Your task to perform on an android device: uninstall "Chime – Mobile Banking" Image 0: 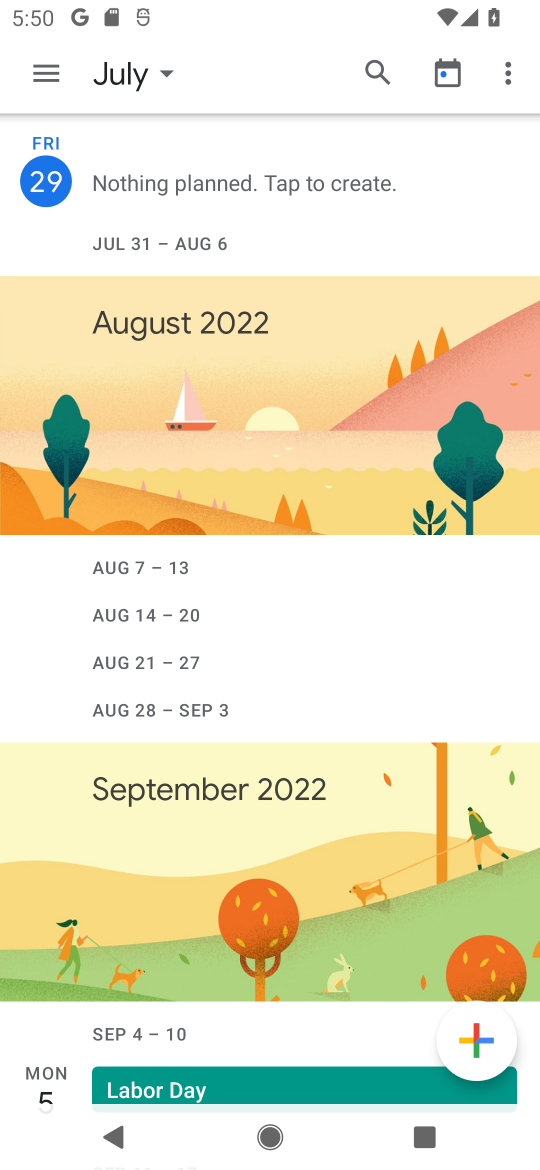
Step 0: press home button
Your task to perform on an android device: uninstall "Chime – Mobile Banking" Image 1: 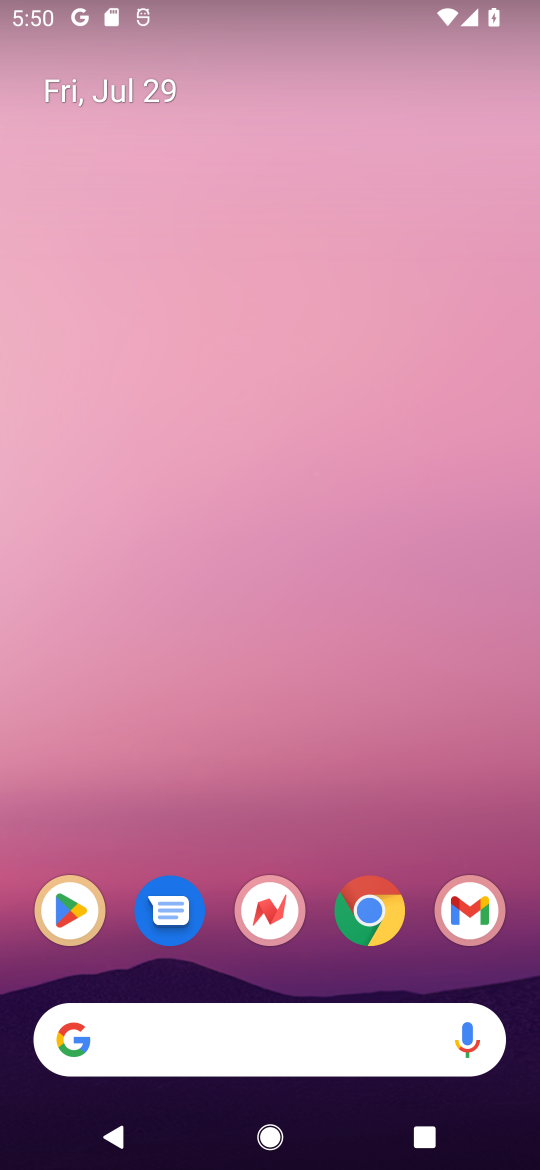
Step 1: click (92, 921)
Your task to perform on an android device: uninstall "Chime – Mobile Banking" Image 2: 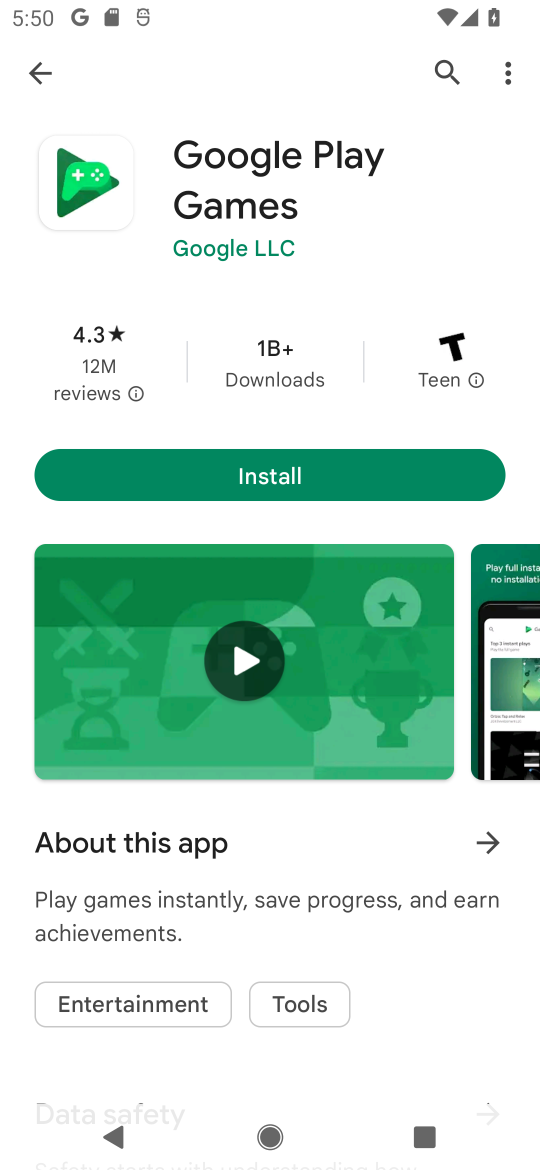
Step 2: click (441, 81)
Your task to perform on an android device: uninstall "Chime – Mobile Banking" Image 3: 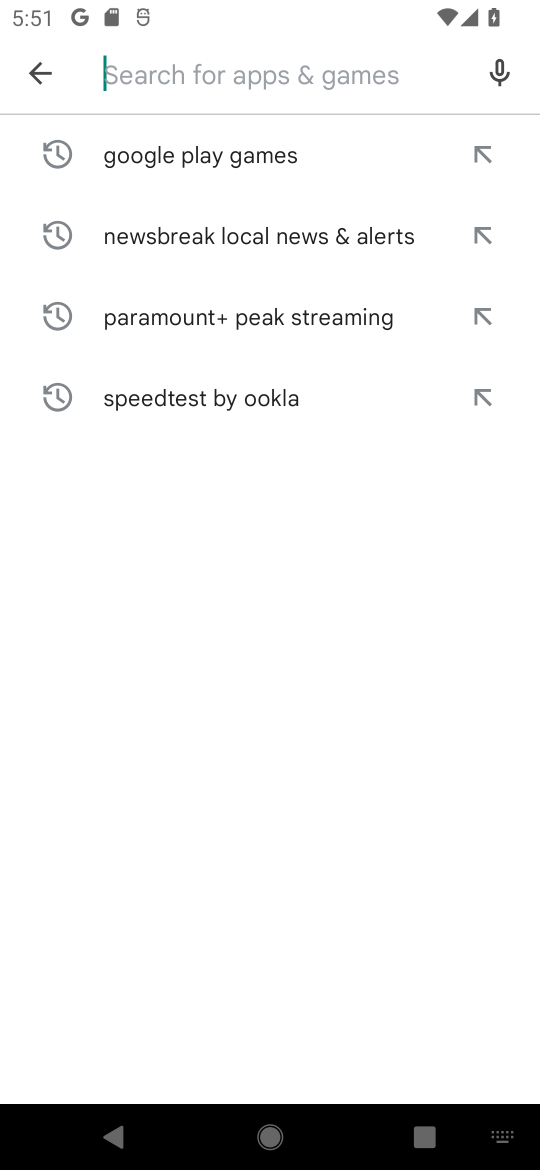
Step 3: type "chime - mobile banking"
Your task to perform on an android device: uninstall "Chime – Mobile Banking" Image 4: 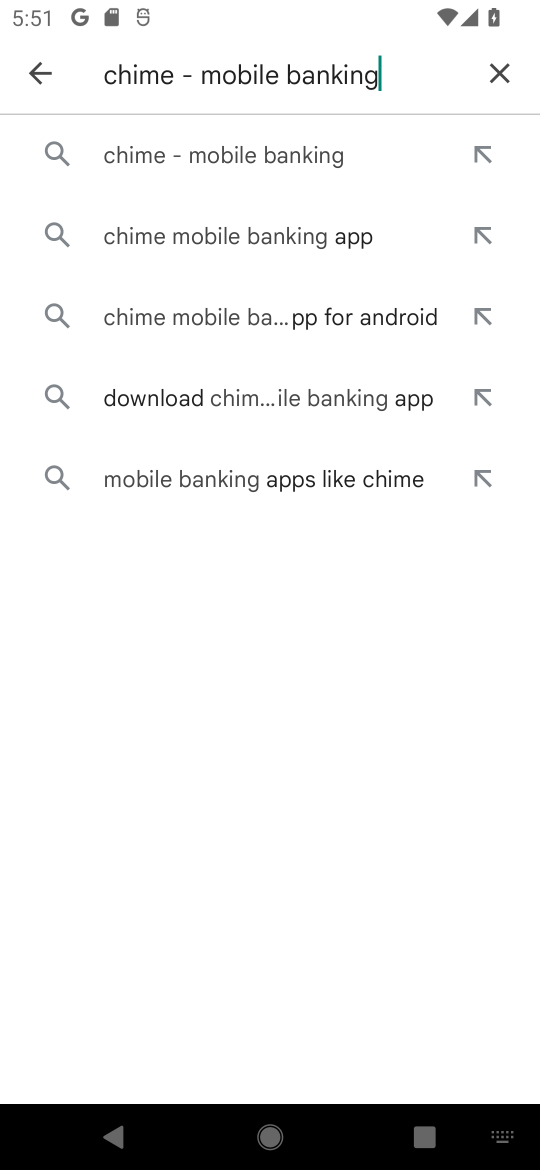
Step 4: click (345, 136)
Your task to perform on an android device: uninstall "Chime – Mobile Banking" Image 5: 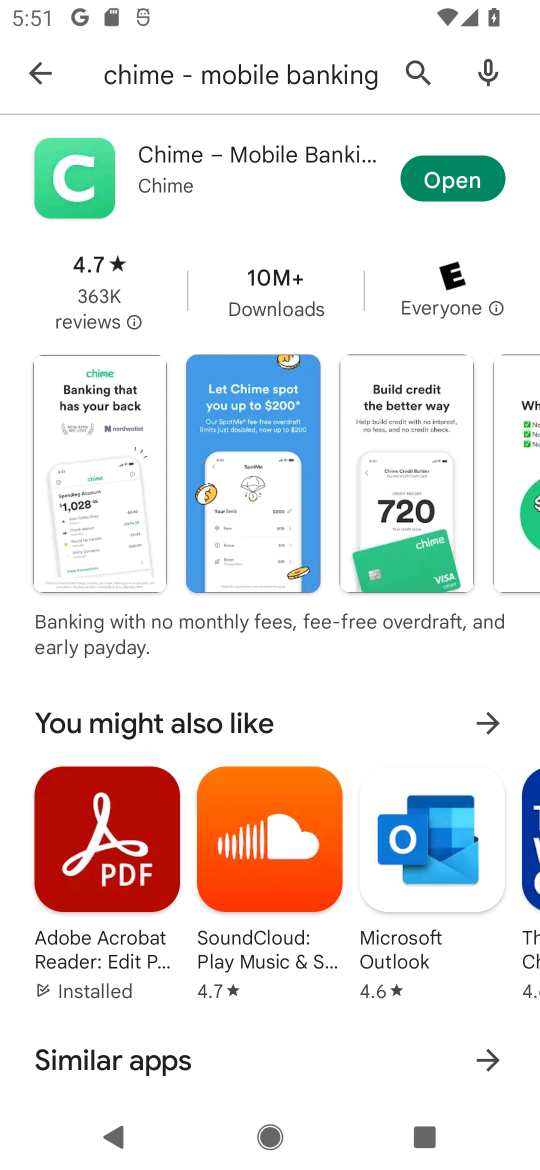
Step 5: click (268, 139)
Your task to perform on an android device: uninstall "Chime – Mobile Banking" Image 6: 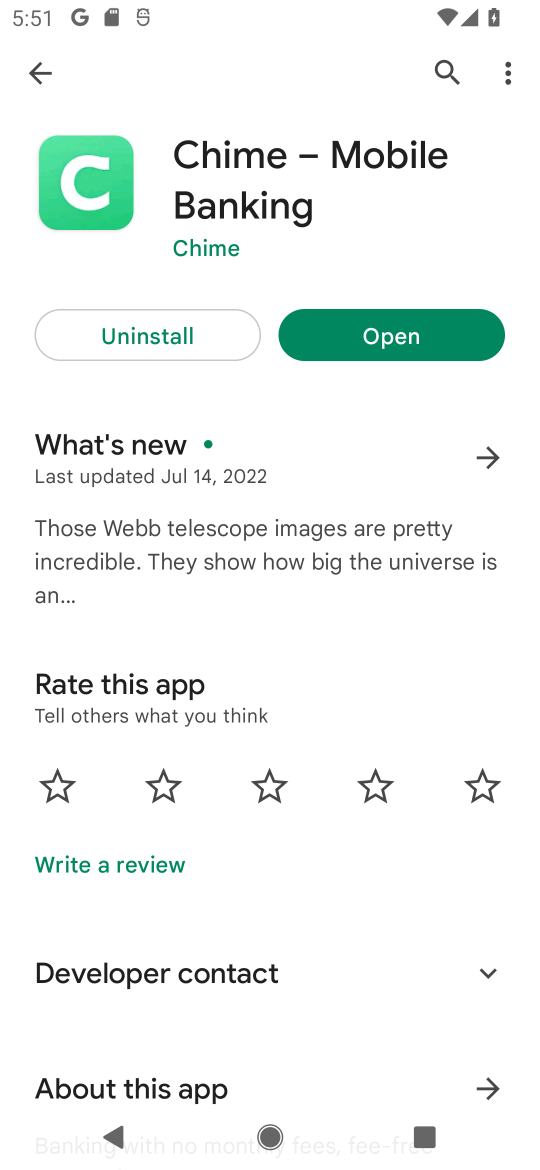
Step 6: click (169, 329)
Your task to perform on an android device: uninstall "Chime – Mobile Banking" Image 7: 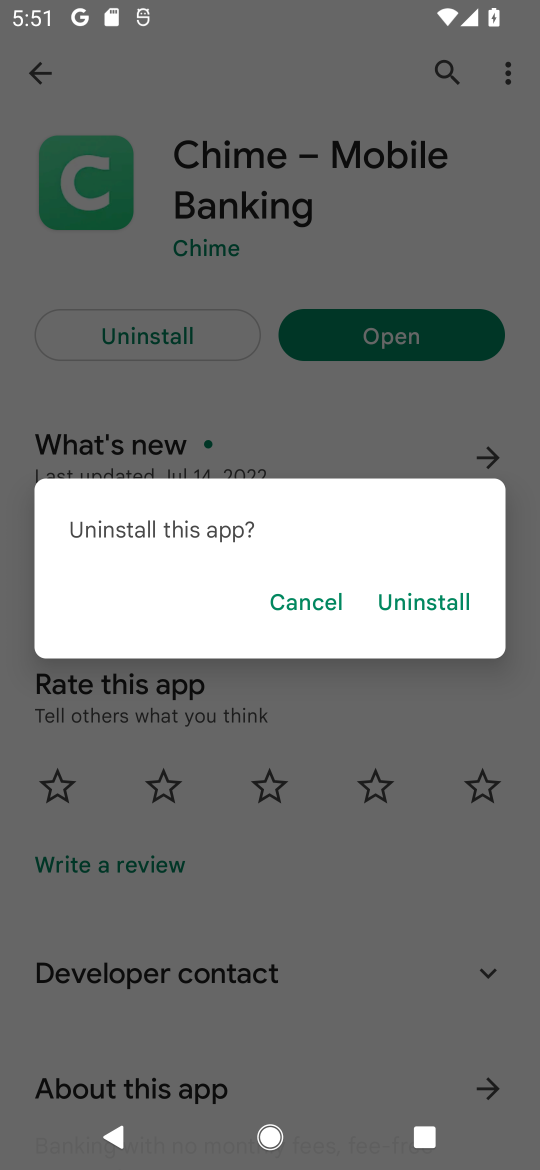
Step 7: click (412, 596)
Your task to perform on an android device: uninstall "Chime – Mobile Banking" Image 8: 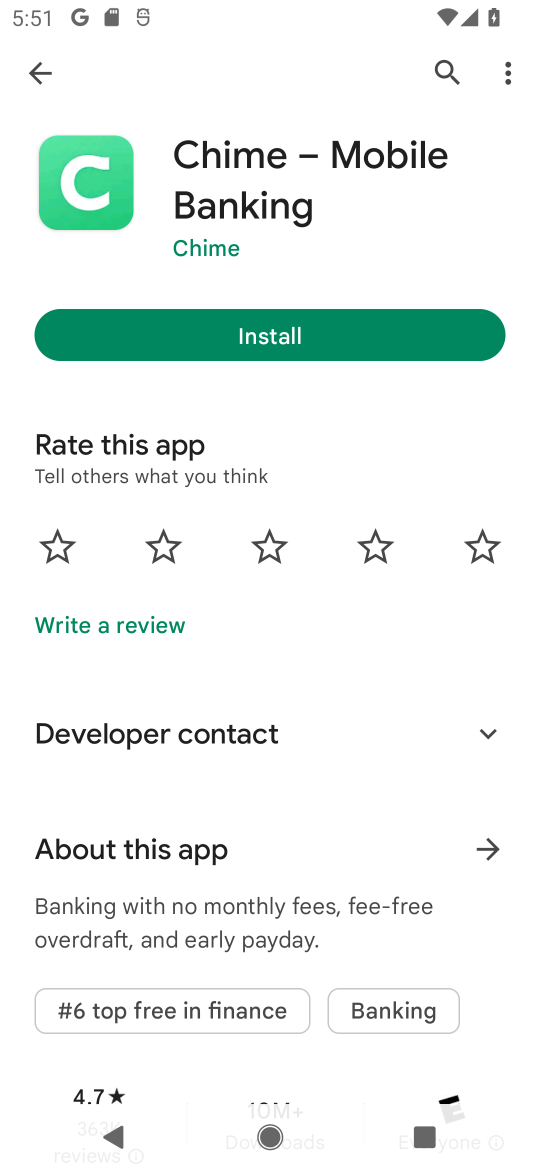
Step 8: task complete